Your task to perform on an android device: add a contact Image 0: 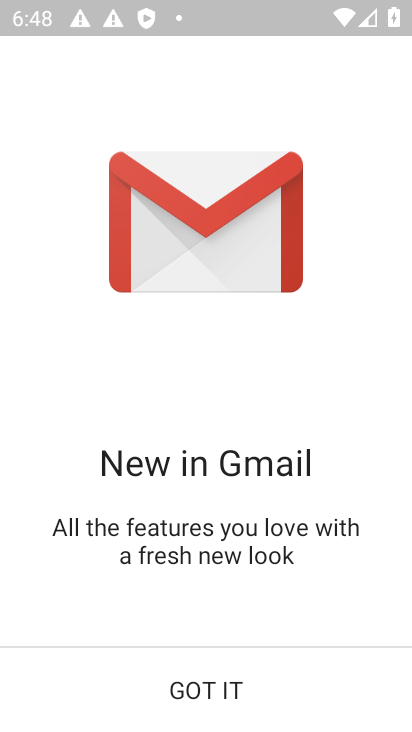
Step 0: click (239, 677)
Your task to perform on an android device: add a contact Image 1: 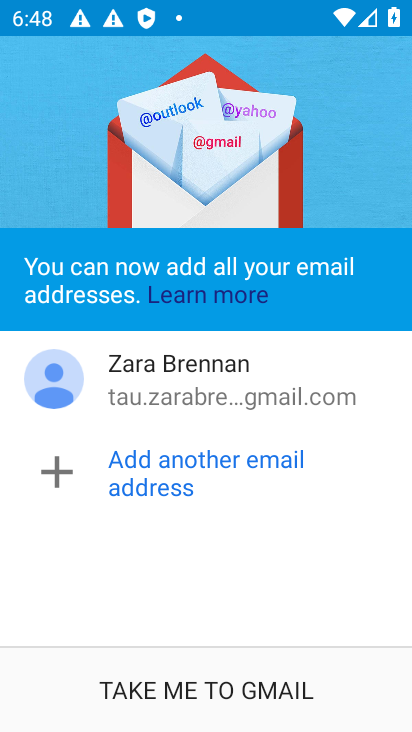
Step 1: click (229, 679)
Your task to perform on an android device: add a contact Image 2: 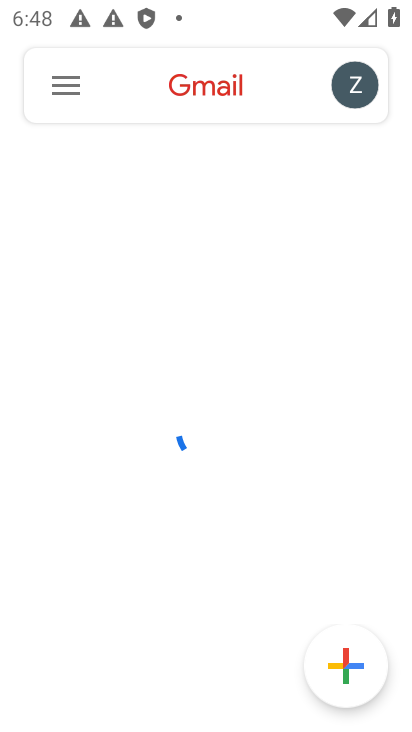
Step 2: press home button
Your task to perform on an android device: add a contact Image 3: 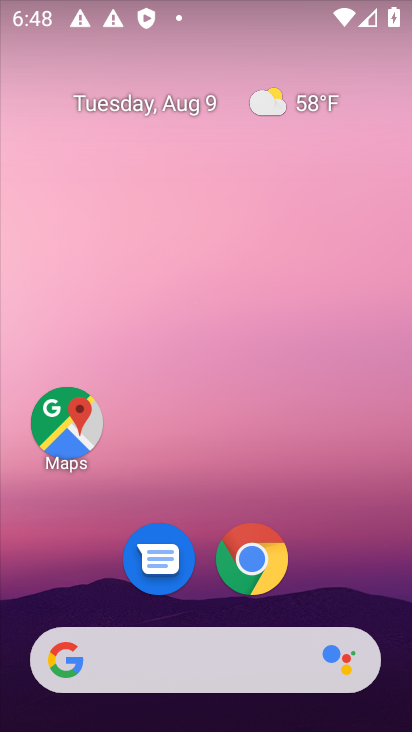
Step 3: drag from (209, 446) to (223, 74)
Your task to perform on an android device: add a contact Image 4: 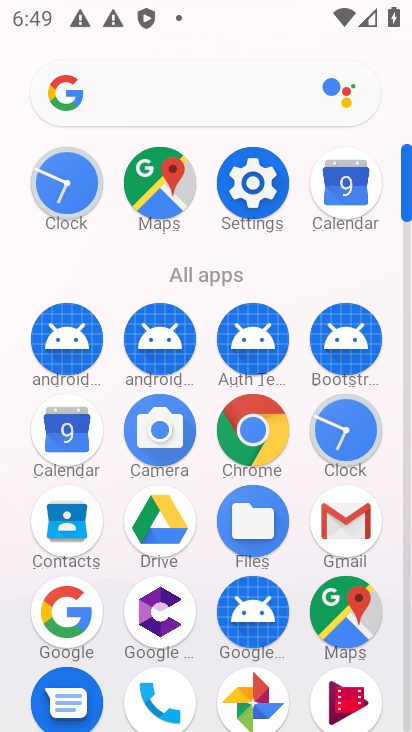
Step 4: click (64, 525)
Your task to perform on an android device: add a contact Image 5: 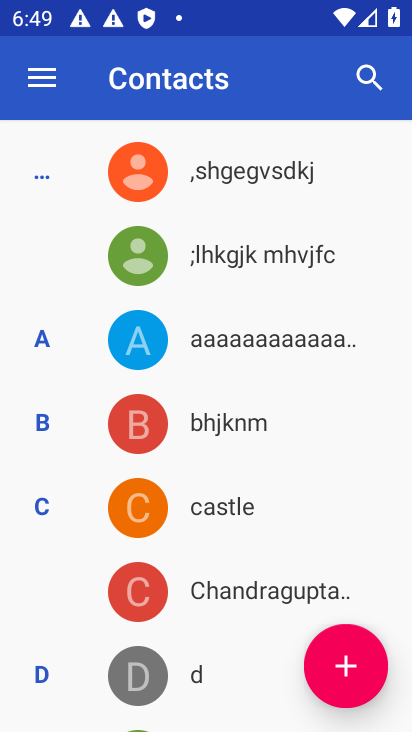
Step 5: click (348, 674)
Your task to perform on an android device: add a contact Image 6: 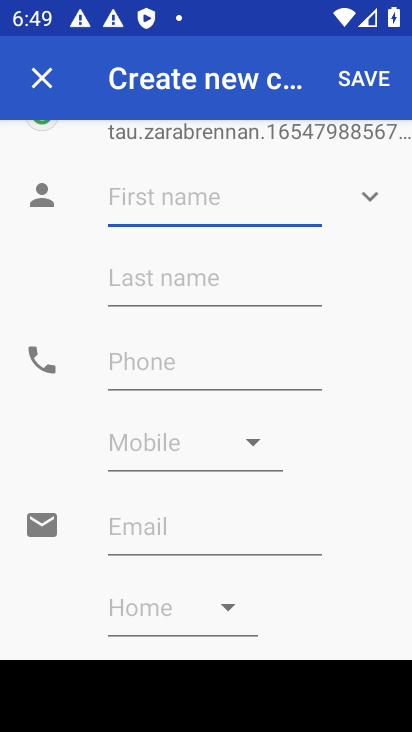
Step 6: type "Nareder"
Your task to perform on an android device: add a contact Image 7: 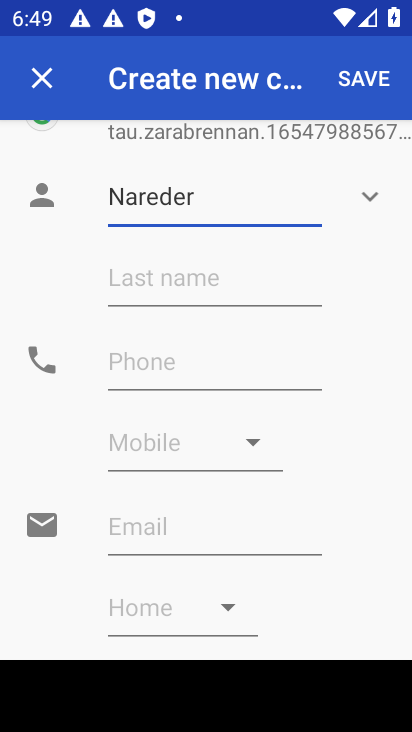
Step 7: click (243, 291)
Your task to perform on an android device: add a contact Image 8: 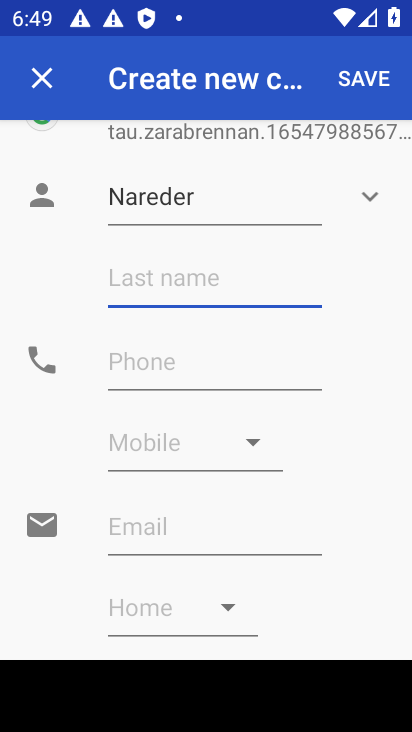
Step 8: type "swami"
Your task to perform on an android device: add a contact Image 9: 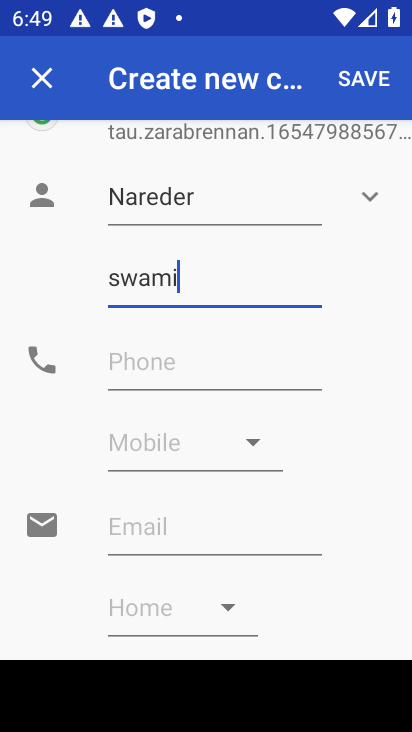
Step 9: click (191, 364)
Your task to perform on an android device: add a contact Image 10: 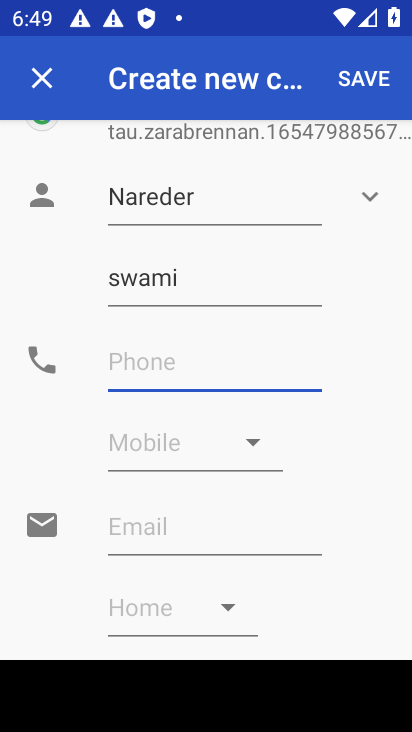
Step 10: type "9098907667"
Your task to perform on an android device: add a contact Image 11: 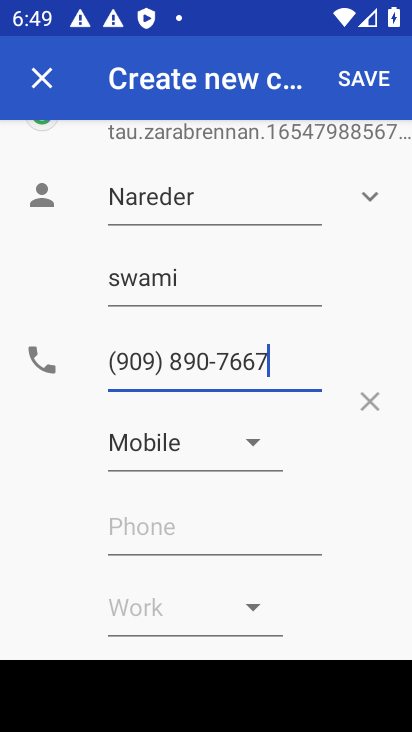
Step 11: click (369, 81)
Your task to perform on an android device: add a contact Image 12: 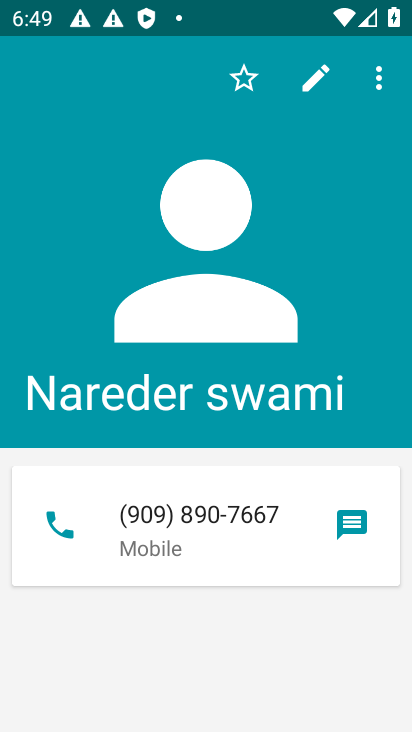
Step 12: task complete